Your task to perform on an android device: Check the weather Image 0: 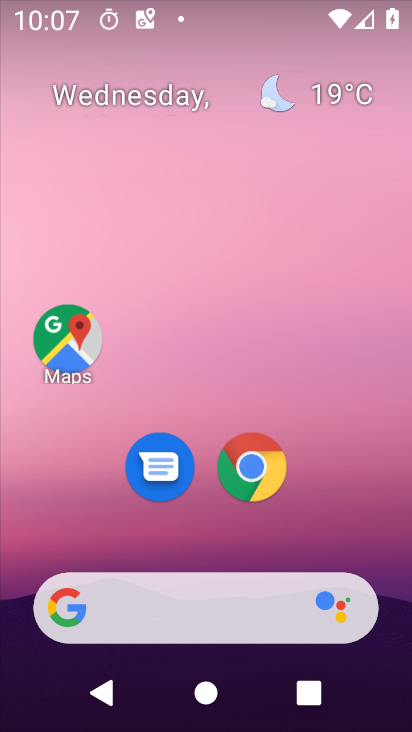
Step 0: click (344, 84)
Your task to perform on an android device: Check the weather Image 1: 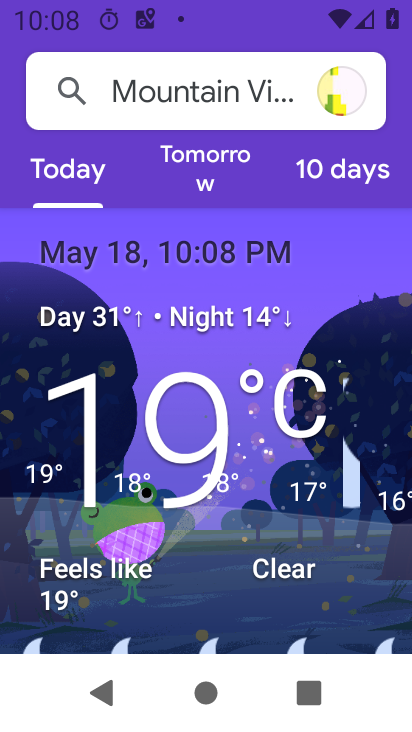
Step 1: task complete